Your task to perform on an android device: Find coffee shops on Maps Image 0: 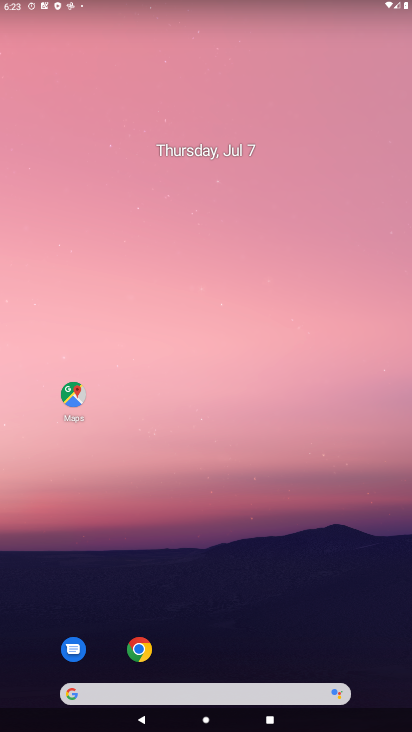
Step 0: drag from (374, 647) to (264, 3)
Your task to perform on an android device: Find coffee shops on Maps Image 1: 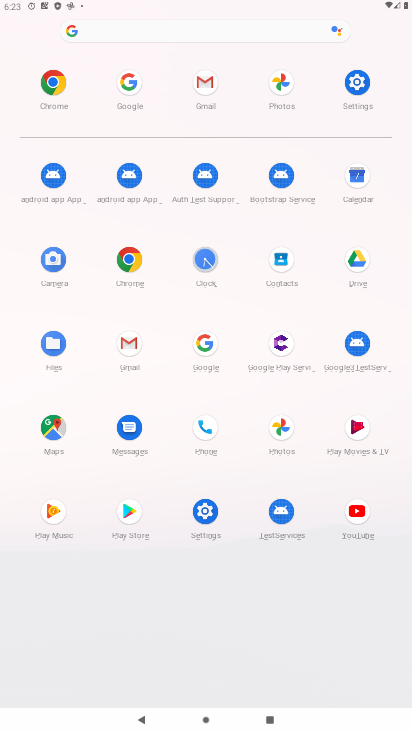
Step 1: click (49, 438)
Your task to perform on an android device: Find coffee shops on Maps Image 2: 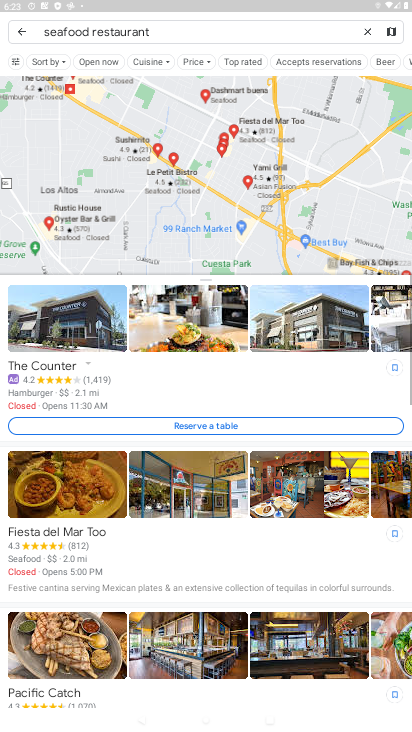
Step 2: click (363, 32)
Your task to perform on an android device: Find coffee shops on Maps Image 3: 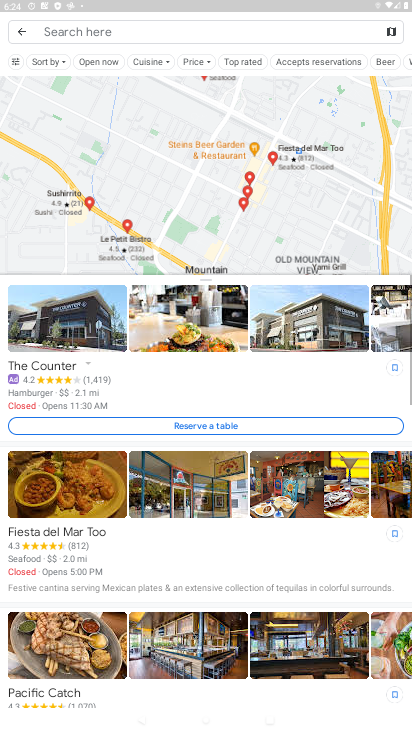
Step 3: click (137, 36)
Your task to perform on an android device: Find coffee shops on Maps Image 4: 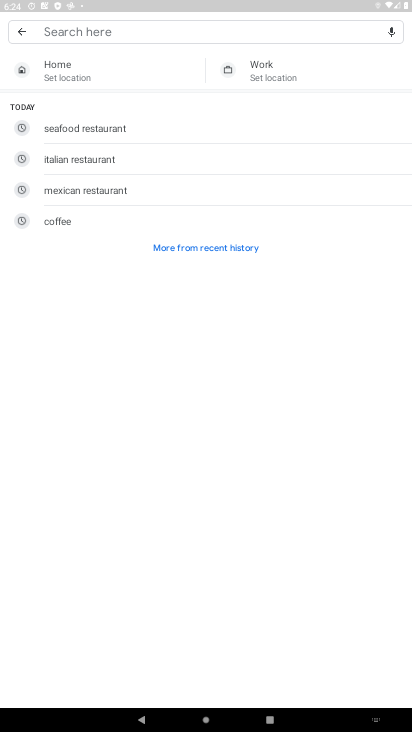
Step 4: type "coffee shops"
Your task to perform on an android device: Find coffee shops on Maps Image 5: 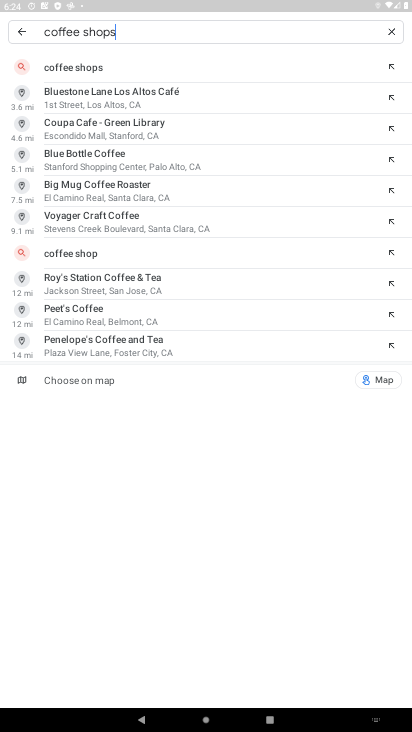
Step 5: click (76, 63)
Your task to perform on an android device: Find coffee shops on Maps Image 6: 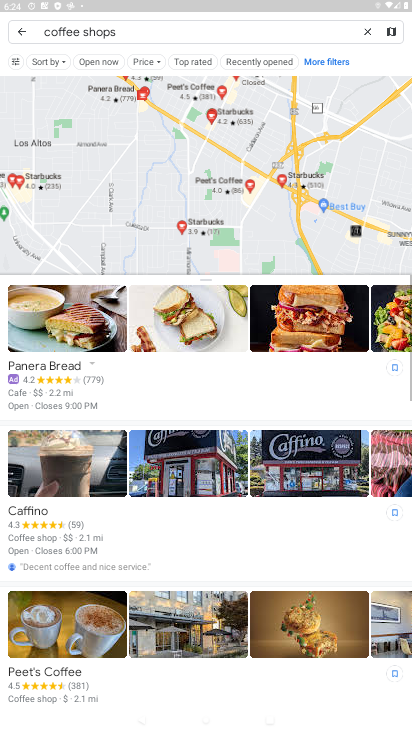
Step 6: task complete